Your task to perform on an android device: Open privacy settings Image 0: 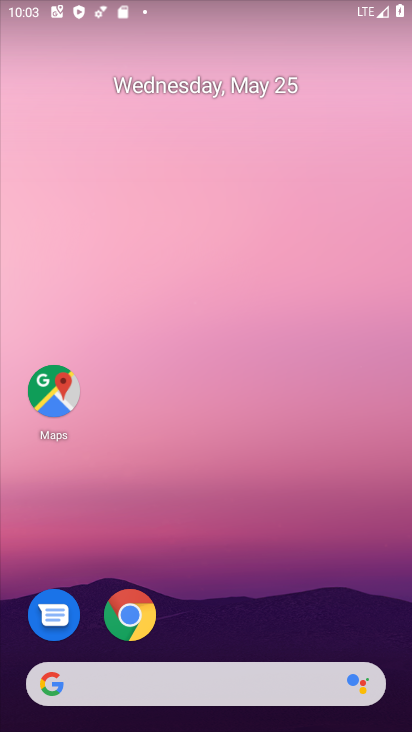
Step 0: drag from (304, 520) to (324, 65)
Your task to perform on an android device: Open privacy settings Image 1: 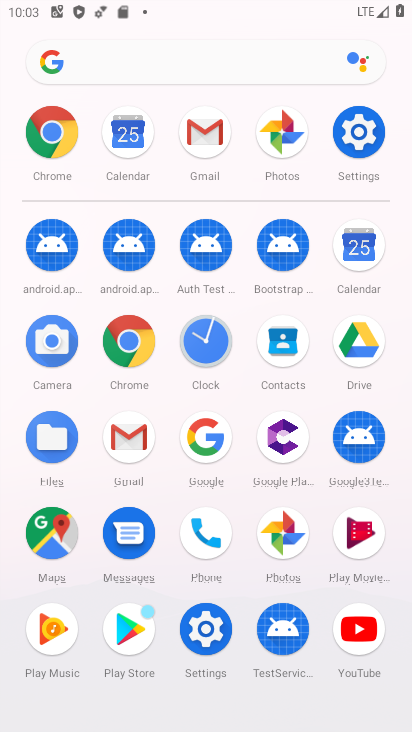
Step 1: click (374, 125)
Your task to perform on an android device: Open privacy settings Image 2: 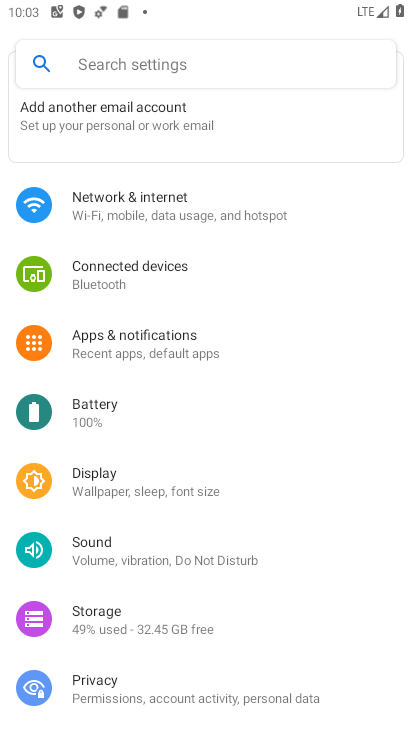
Step 2: click (184, 689)
Your task to perform on an android device: Open privacy settings Image 3: 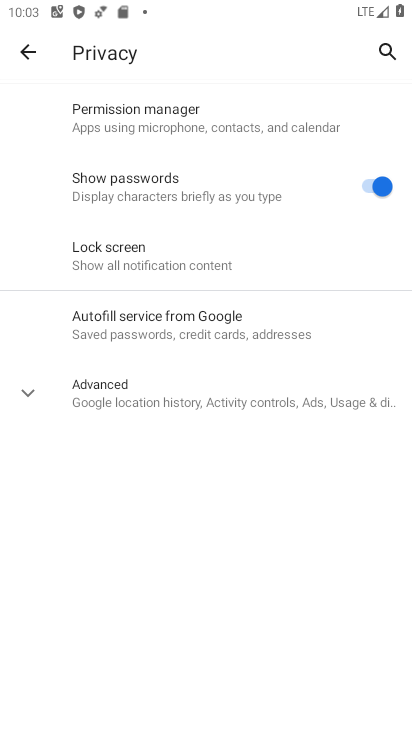
Step 3: task complete